Your task to perform on an android device: Go to Maps Image 0: 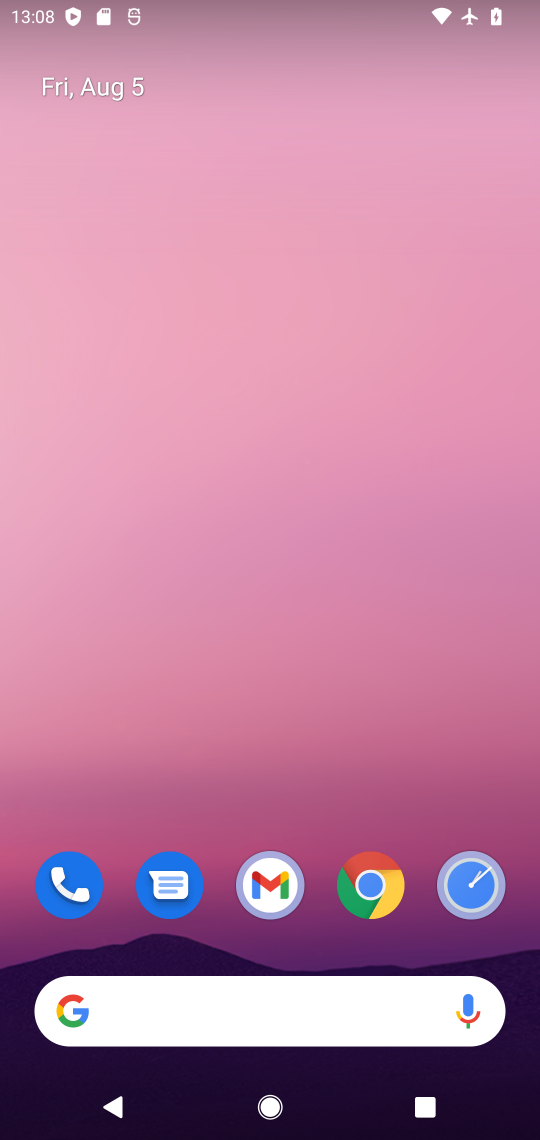
Step 0: drag from (303, 678) to (296, 135)
Your task to perform on an android device: Go to Maps Image 1: 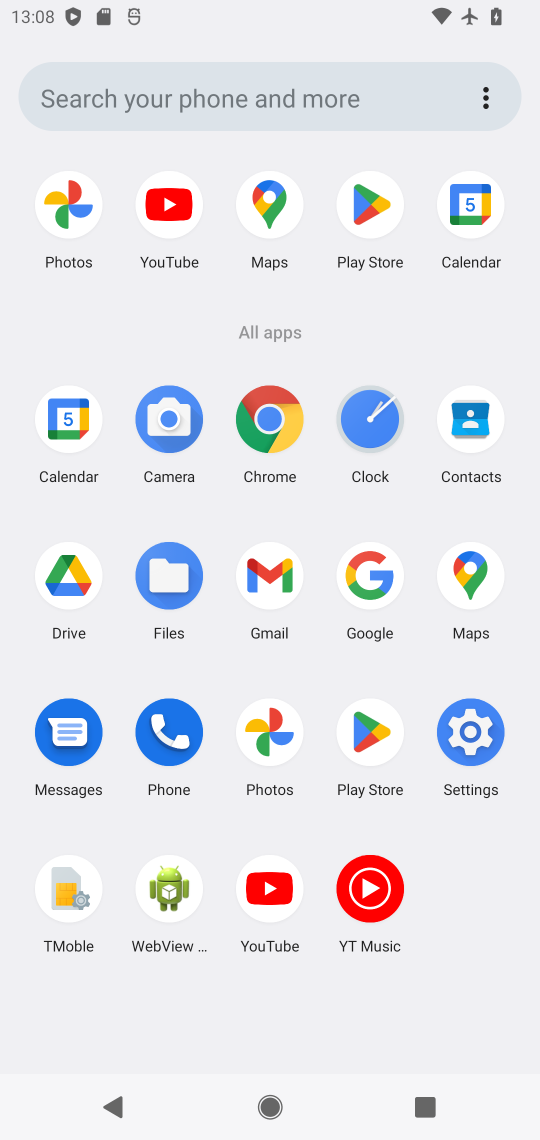
Step 1: click (272, 216)
Your task to perform on an android device: Go to Maps Image 2: 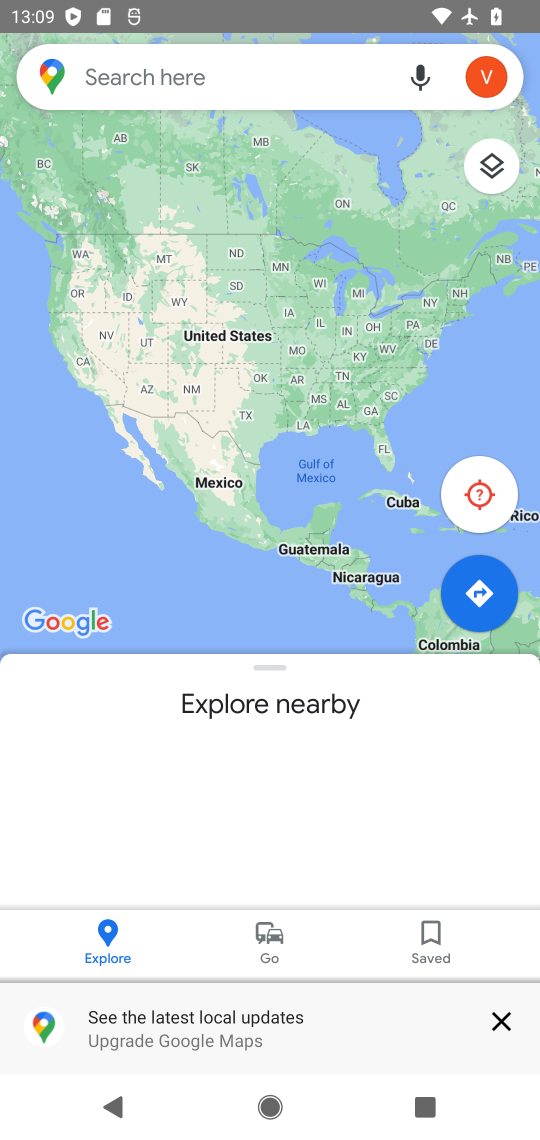
Step 2: task complete